Your task to perform on an android device: Open Android settings Image 0: 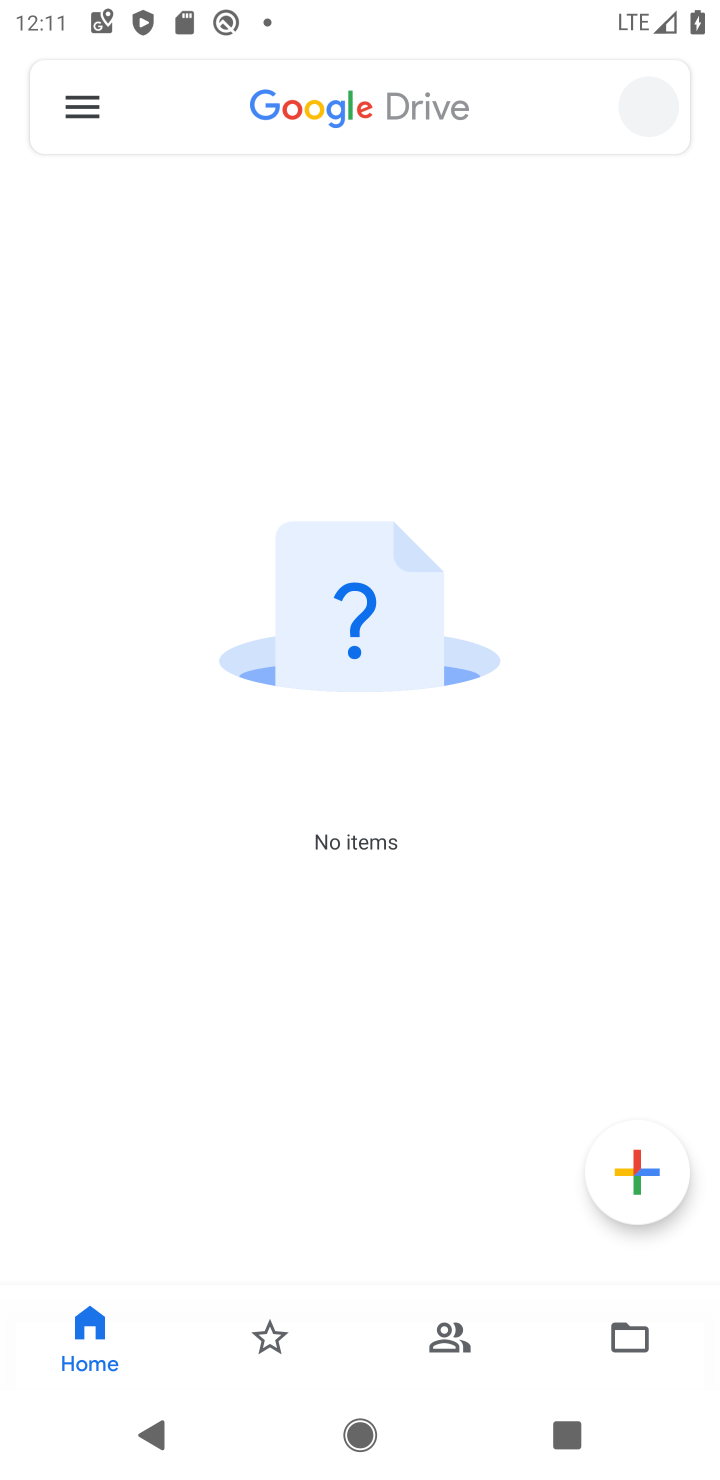
Step 0: press home button
Your task to perform on an android device: Open Android settings Image 1: 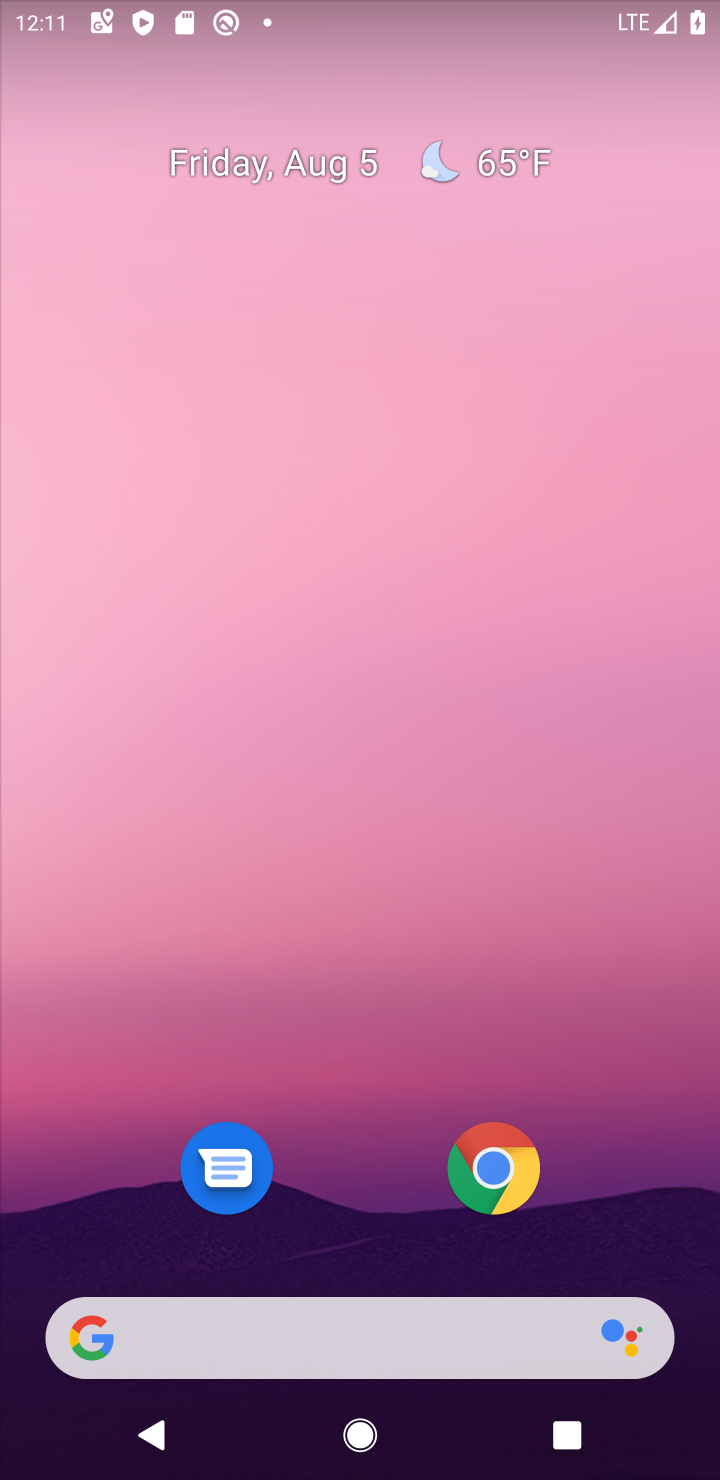
Step 1: drag from (676, 1247) to (346, 33)
Your task to perform on an android device: Open Android settings Image 2: 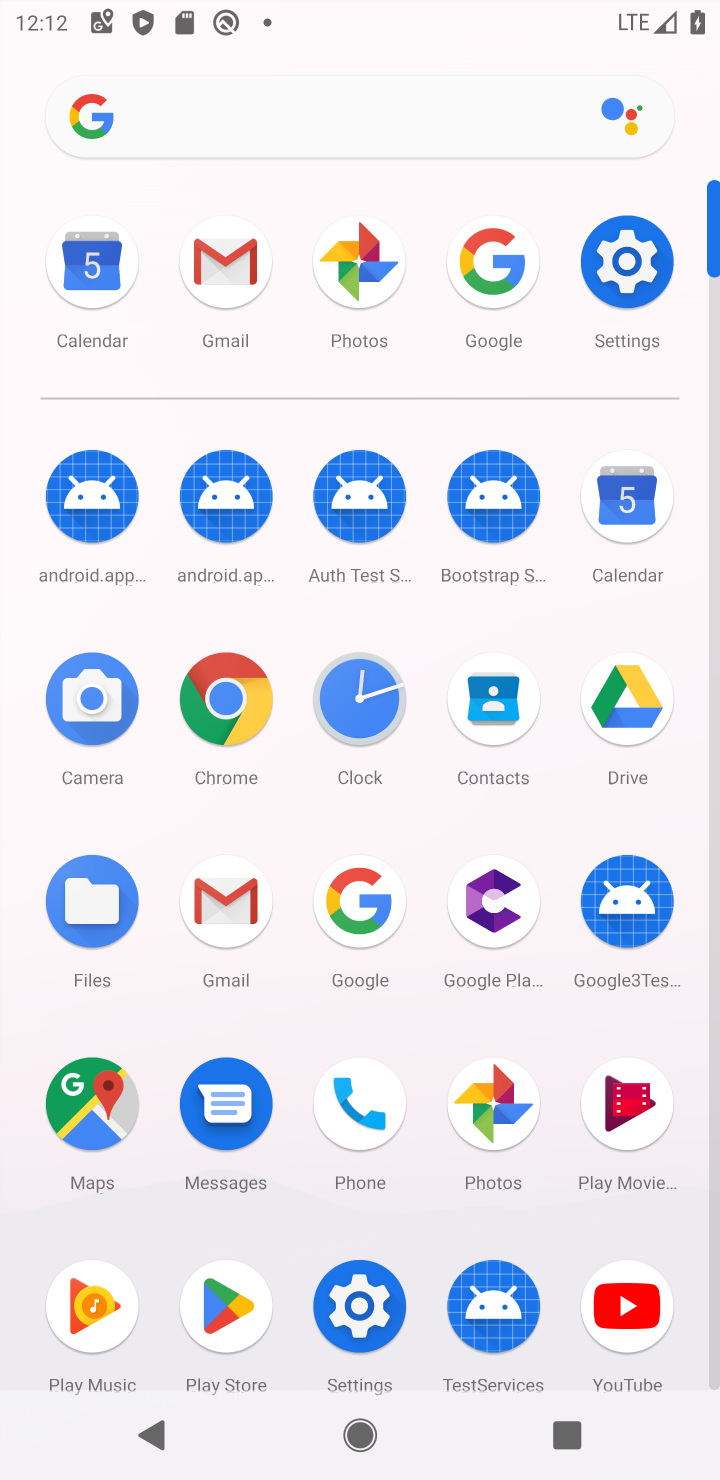
Step 2: click (371, 1309)
Your task to perform on an android device: Open Android settings Image 3: 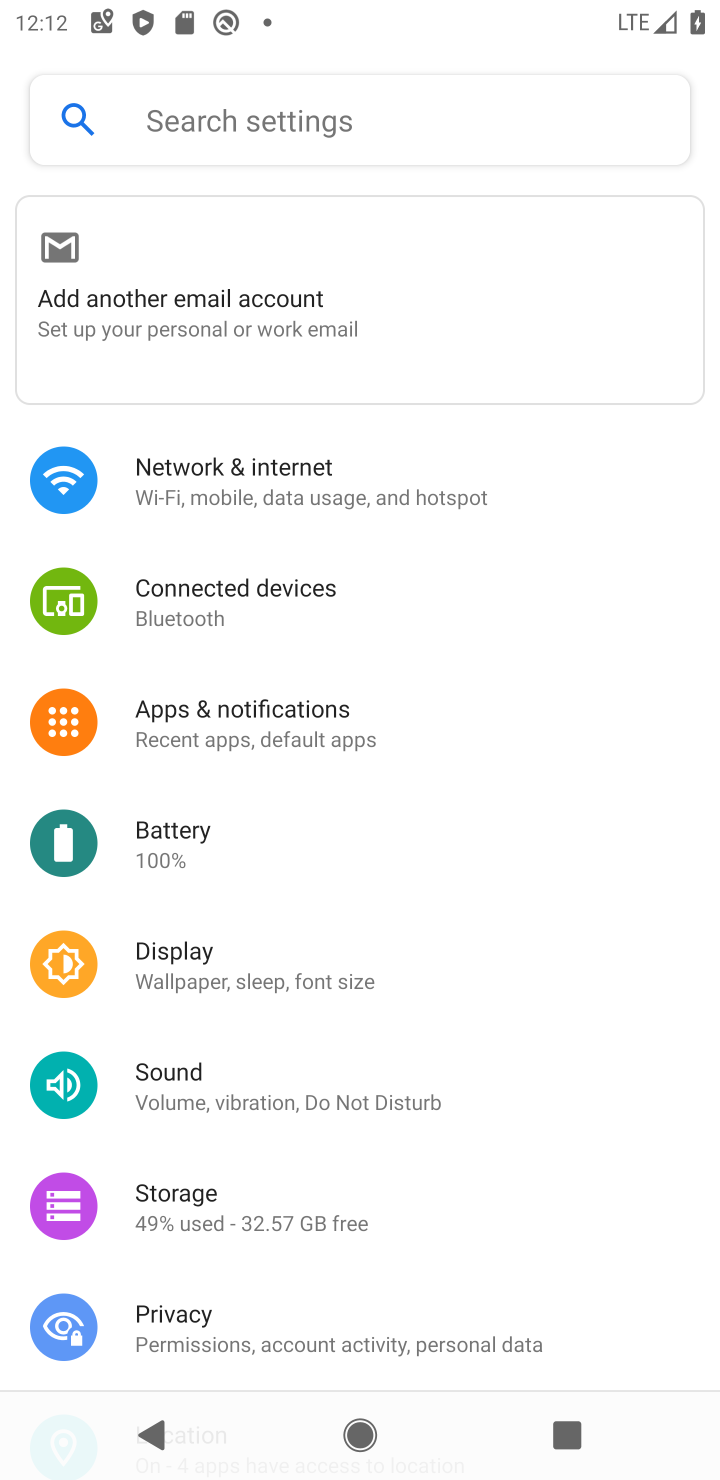
Step 3: task complete